Your task to perform on an android device: turn notification dots on Image 0: 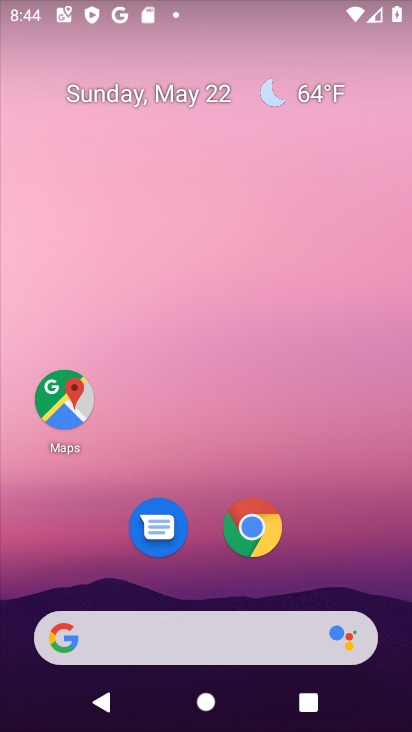
Step 0: press home button
Your task to perform on an android device: turn notification dots on Image 1: 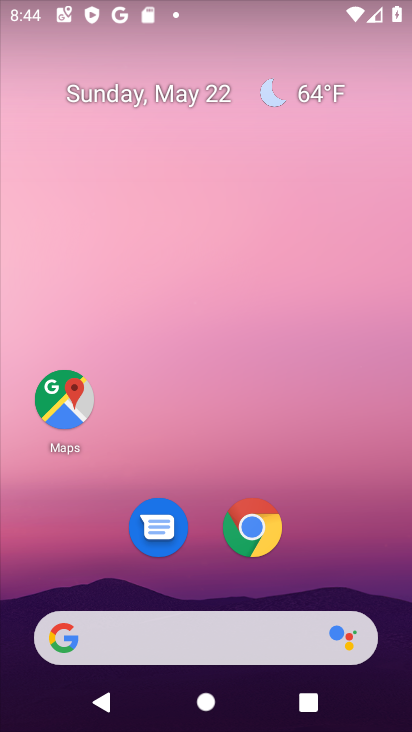
Step 1: drag from (201, 580) to (253, 72)
Your task to perform on an android device: turn notification dots on Image 2: 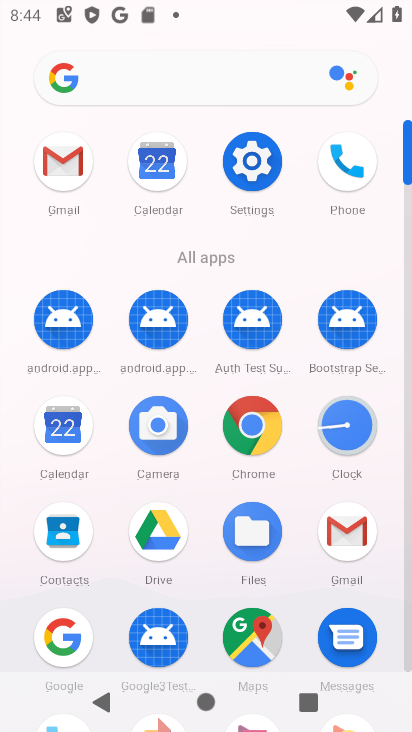
Step 2: click (256, 156)
Your task to perform on an android device: turn notification dots on Image 3: 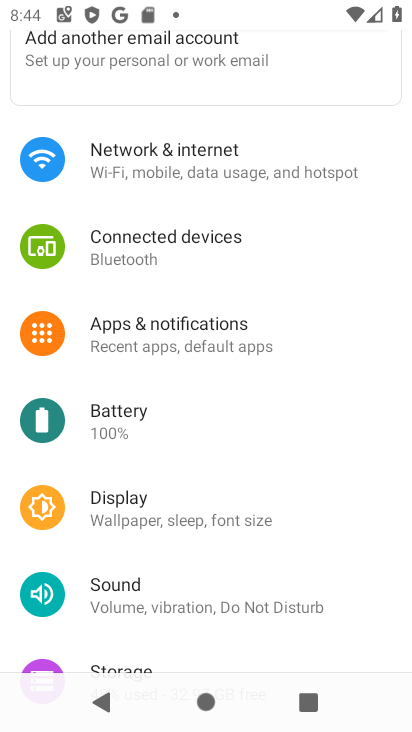
Step 3: click (178, 329)
Your task to perform on an android device: turn notification dots on Image 4: 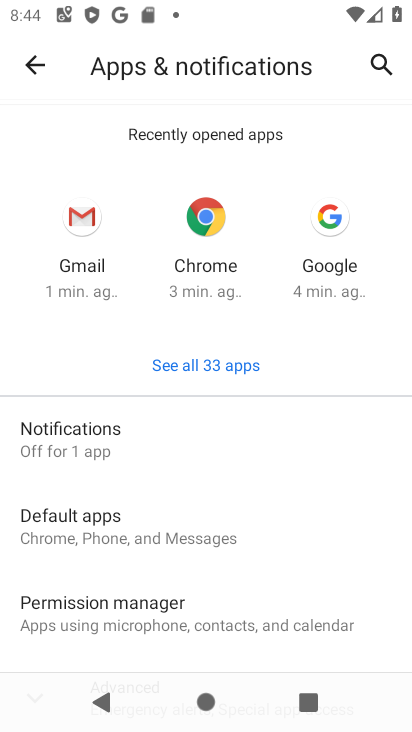
Step 4: click (116, 439)
Your task to perform on an android device: turn notification dots on Image 5: 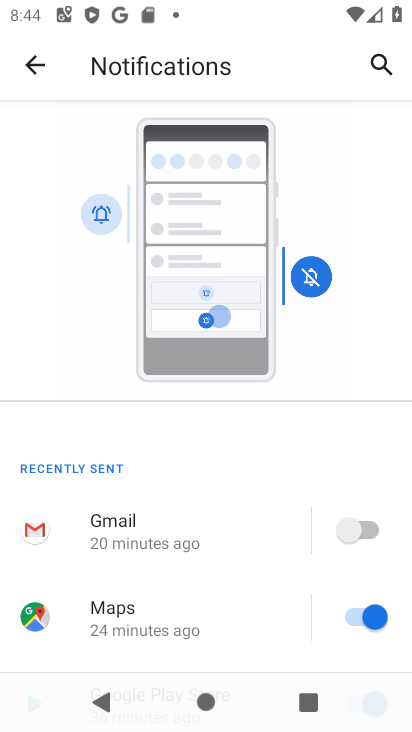
Step 5: drag from (202, 615) to (230, 307)
Your task to perform on an android device: turn notification dots on Image 6: 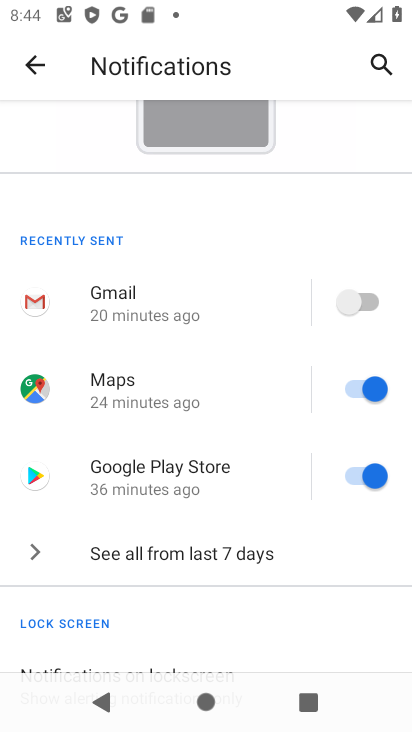
Step 6: drag from (206, 594) to (205, 162)
Your task to perform on an android device: turn notification dots on Image 7: 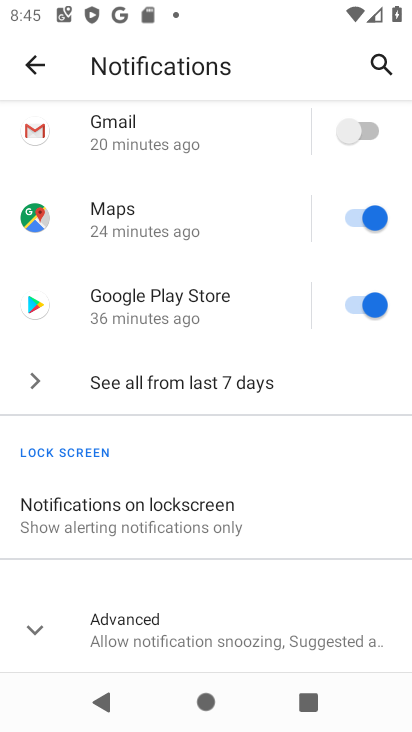
Step 7: click (49, 620)
Your task to perform on an android device: turn notification dots on Image 8: 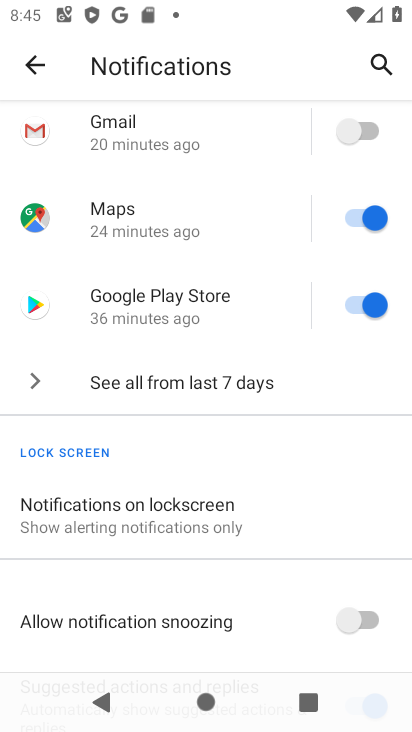
Step 8: task complete